Your task to perform on an android device: toggle translation in the chrome app Image 0: 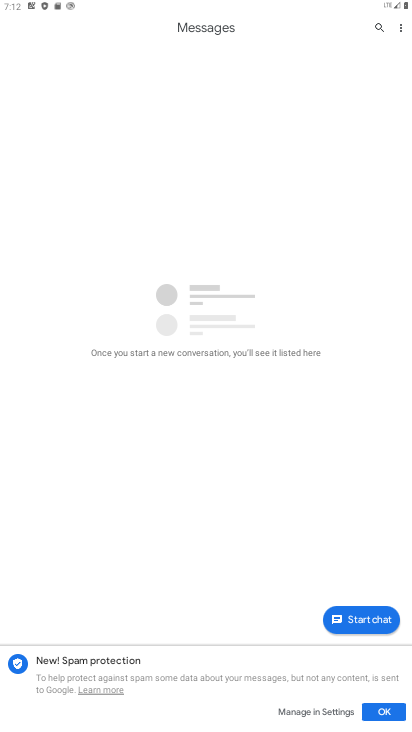
Step 0: press home button
Your task to perform on an android device: toggle translation in the chrome app Image 1: 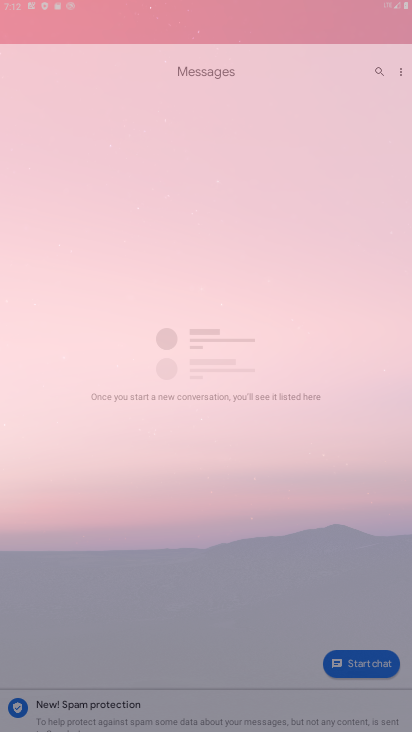
Step 1: drag from (373, 680) to (283, 10)
Your task to perform on an android device: toggle translation in the chrome app Image 2: 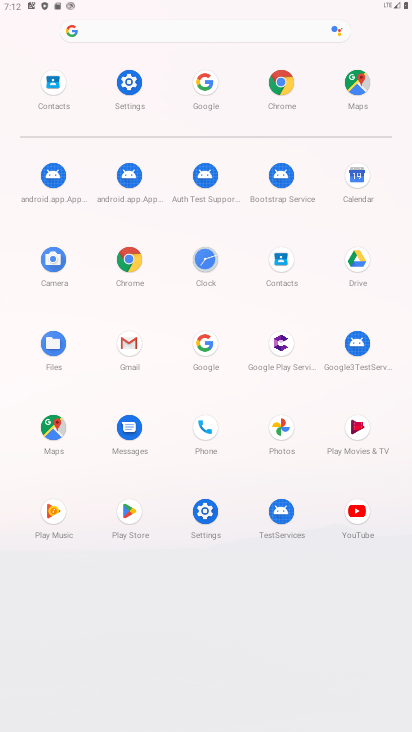
Step 2: click (282, 75)
Your task to perform on an android device: toggle translation in the chrome app Image 3: 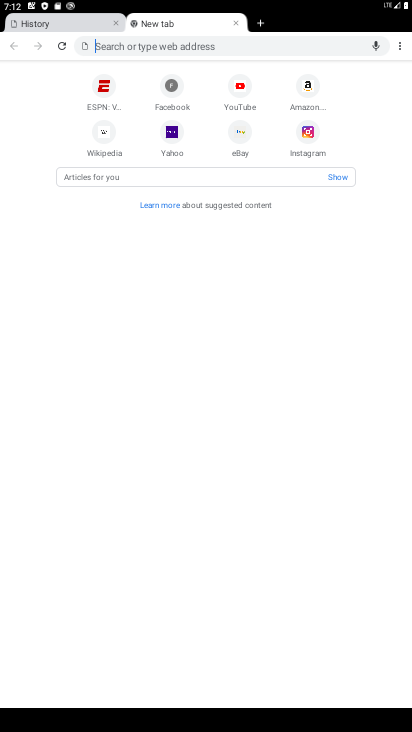
Step 3: click (402, 46)
Your task to perform on an android device: toggle translation in the chrome app Image 4: 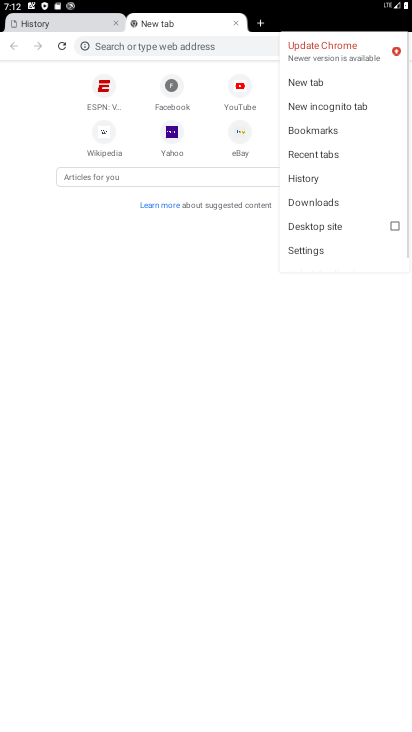
Step 4: click (306, 242)
Your task to perform on an android device: toggle translation in the chrome app Image 5: 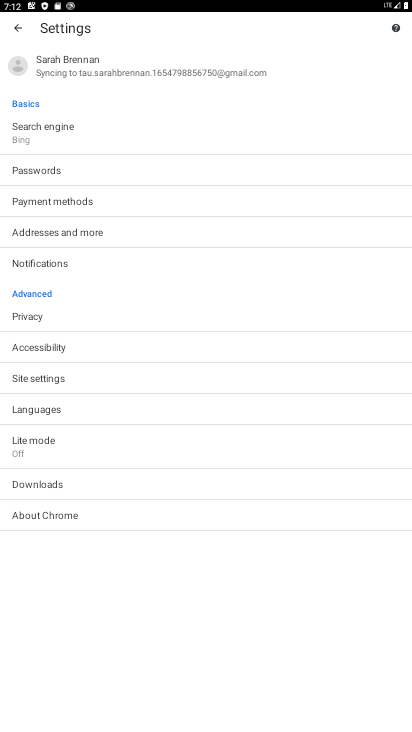
Step 5: click (61, 411)
Your task to perform on an android device: toggle translation in the chrome app Image 6: 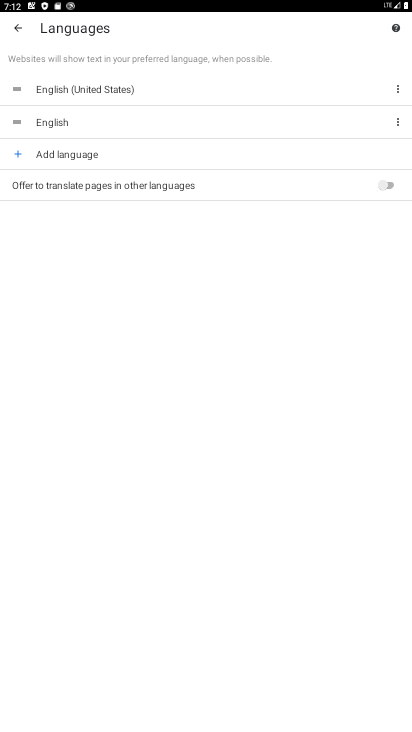
Step 6: click (348, 189)
Your task to perform on an android device: toggle translation in the chrome app Image 7: 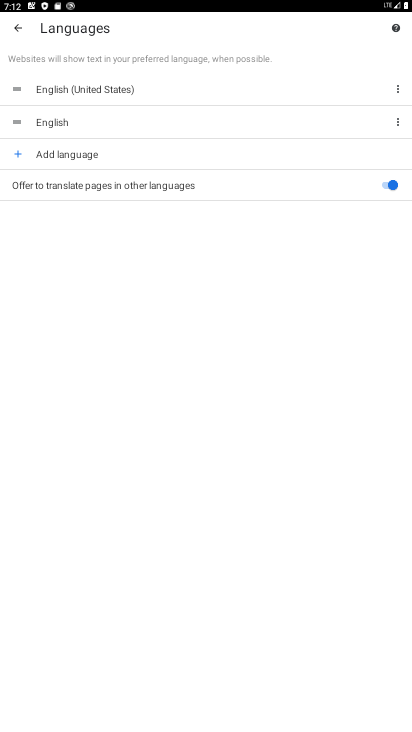
Step 7: task complete